Your task to perform on an android device: Do I have any events this weekend? Image 0: 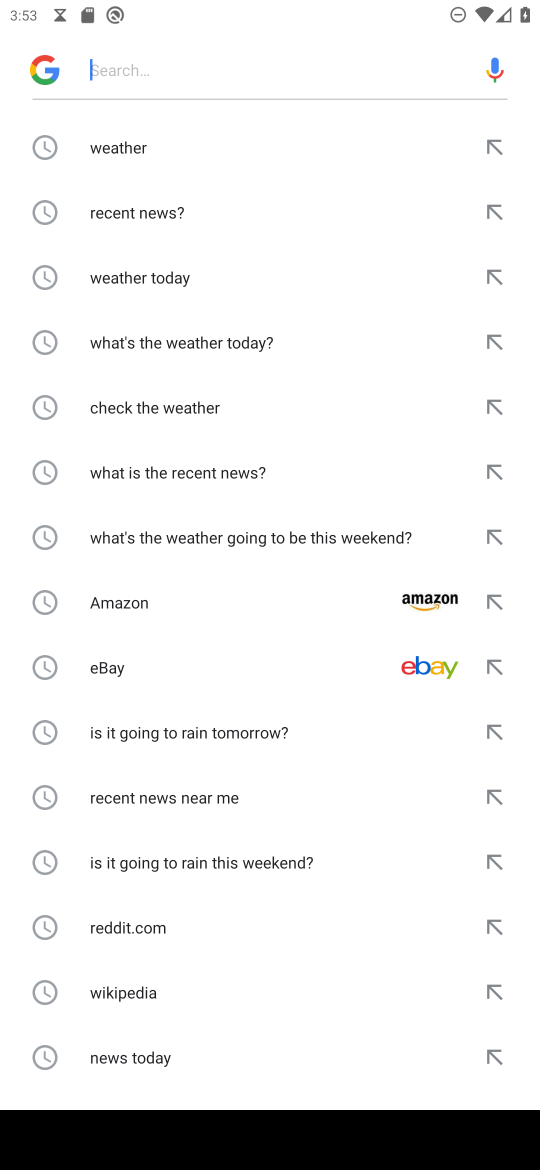
Step 0: press home button
Your task to perform on an android device: Do I have any events this weekend? Image 1: 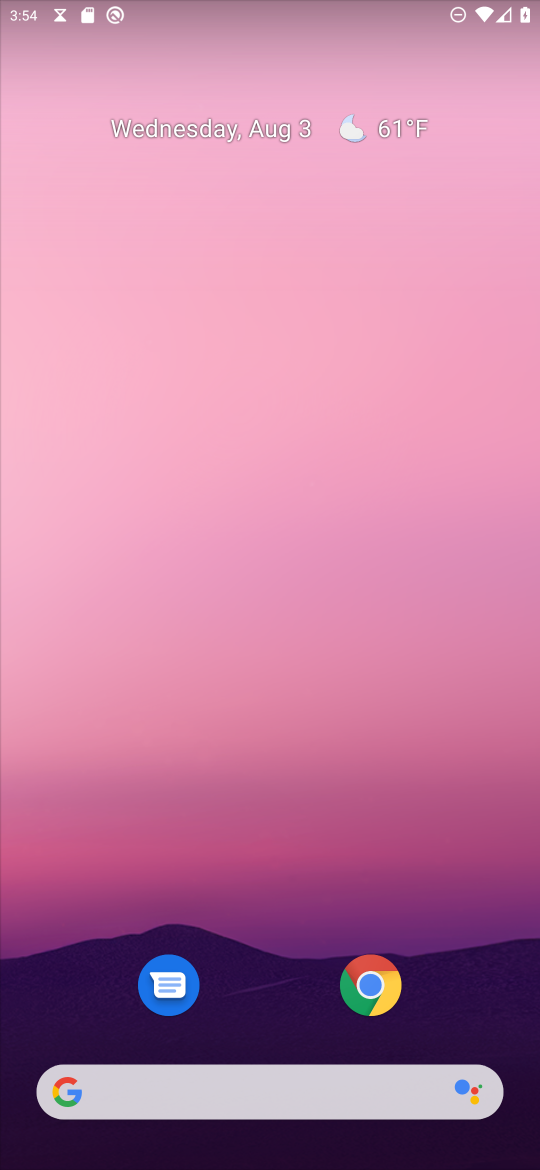
Step 1: drag from (261, 1024) to (106, 28)
Your task to perform on an android device: Do I have any events this weekend? Image 2: 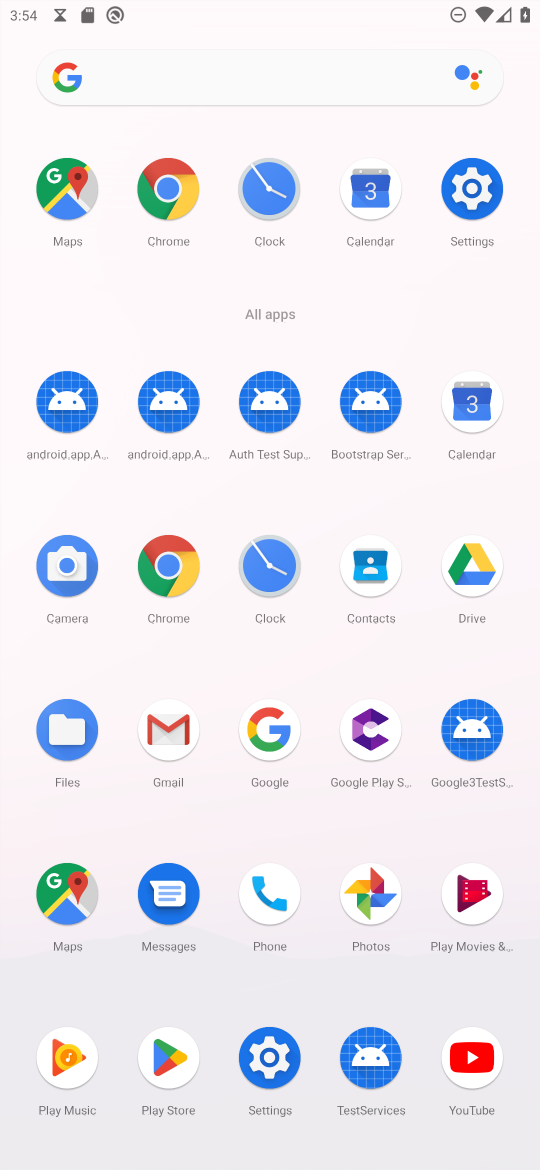
Step 2: click (471, 394)
Your task to perform on an android device: Do I have any events this weekend? Image 3: 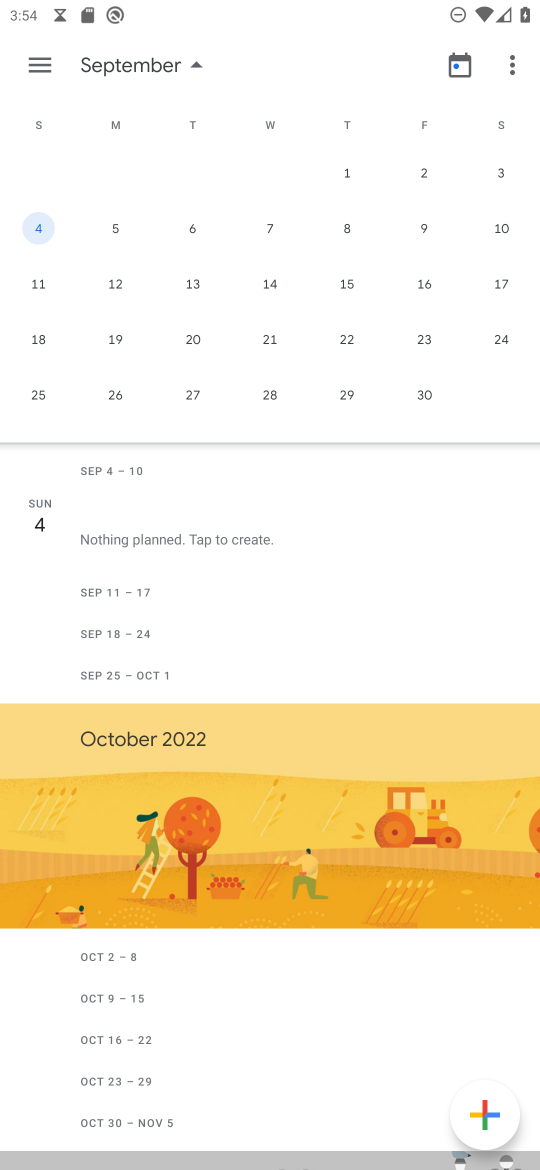
Step 3: drag from (92, 298) to (510, 235)
Your task to perform on an android device: Do I have any events this weekend? Image 4: 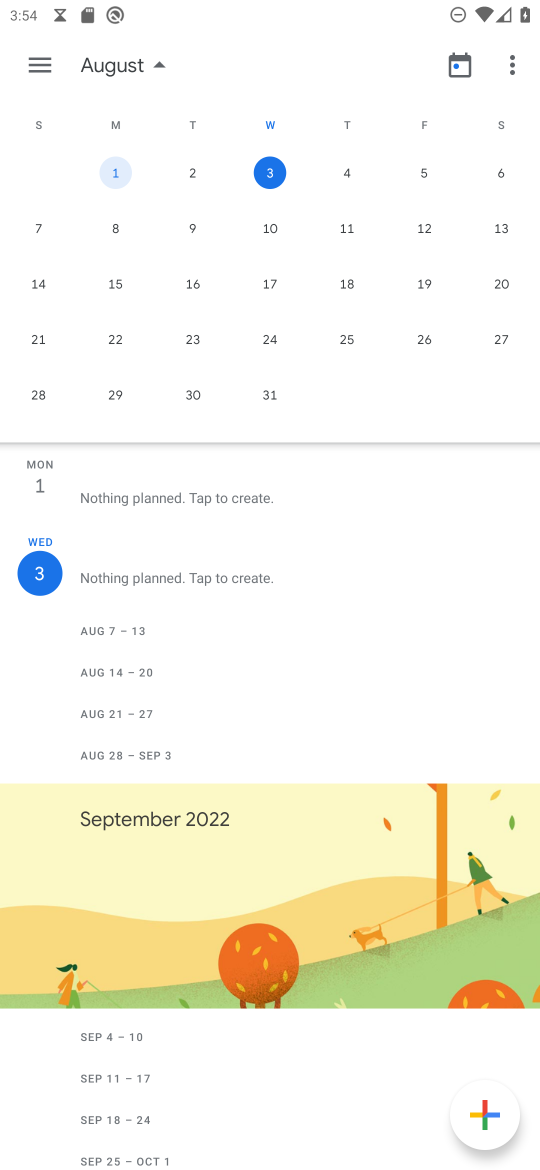
Step 4: click (487, 168)
Your task to perform on an android device: Do I have any events this weekend? Image 5: 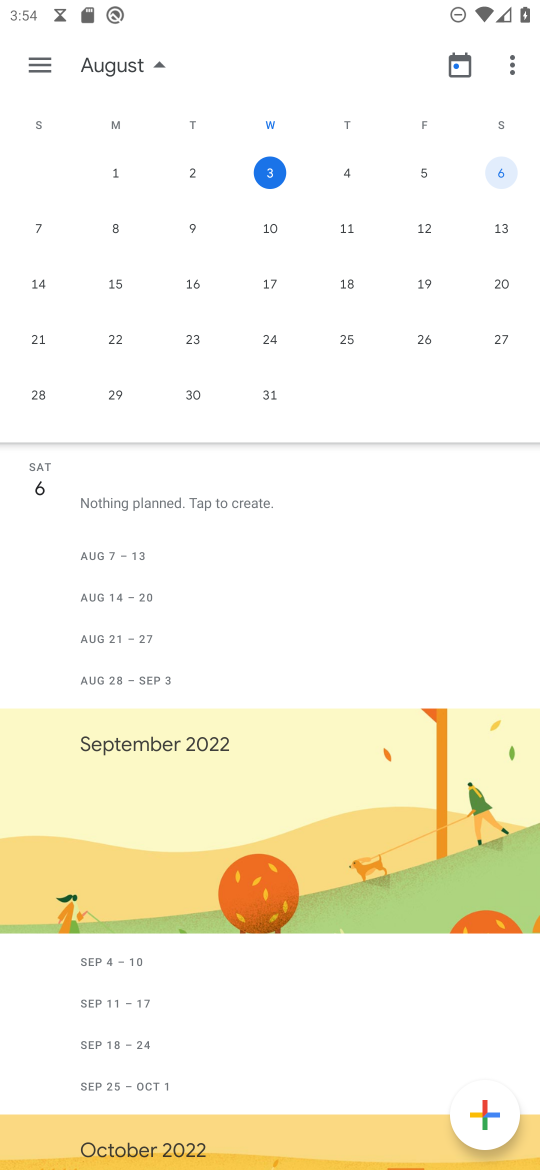
Step 5: task complete